Your task to perform on an android device: Turn off the flashlight Image 0: 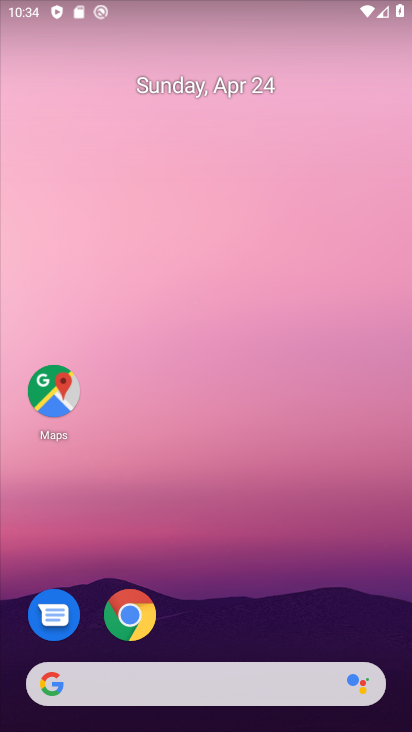
Step 0: drag from (207, 641) to (240, 41)
Your task to perform on an android device: Turn off the flashlight Image 1: 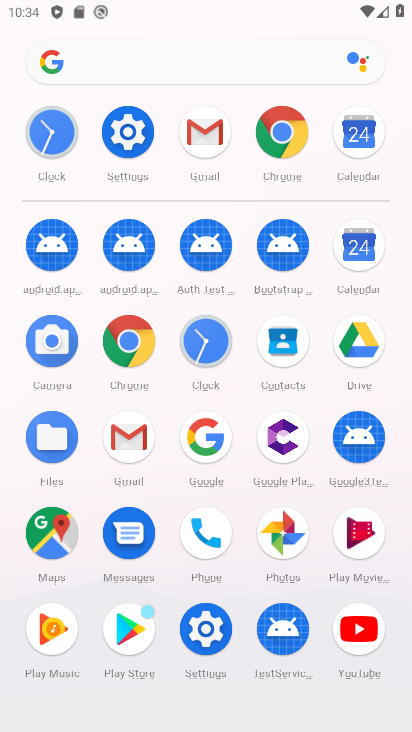
Step 1: click (125, 123)
Your task to perform on an android device: Turn off the flashlight Image 2: 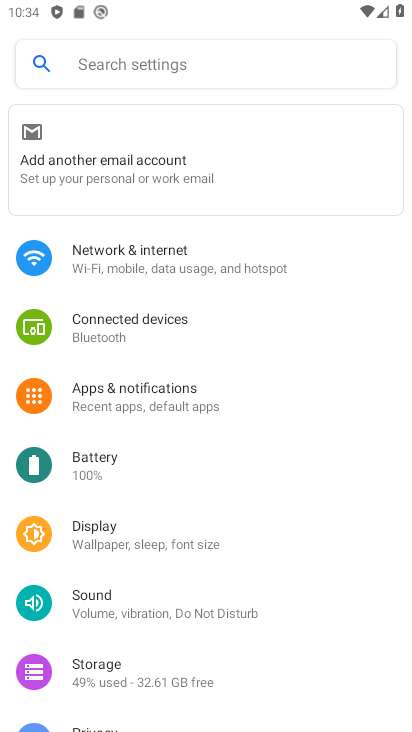
Step 2: click (131, 61)
Your task to perform on an android device: Turn off the flashlight Image 3: 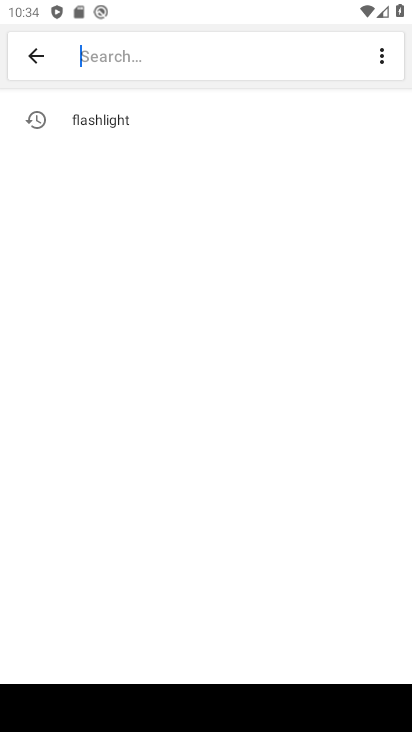
Step 3: click (134, 120)
Your task to perform on an android device: Turn off the flashlight Image 4: 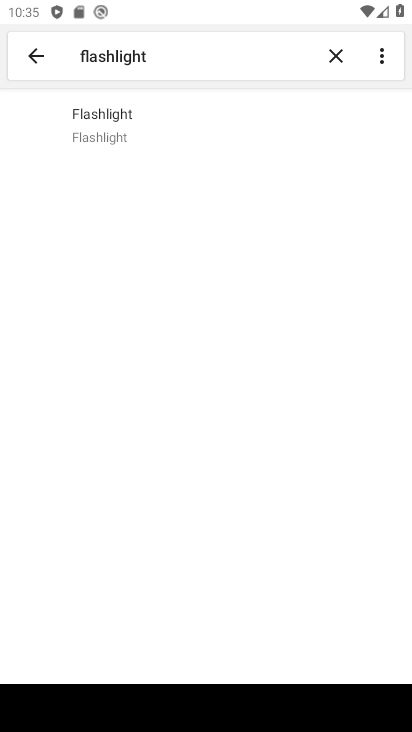
Step 4: click (158, 123)
Your task to perform on an android device: Turn off the flashlight Image 5: 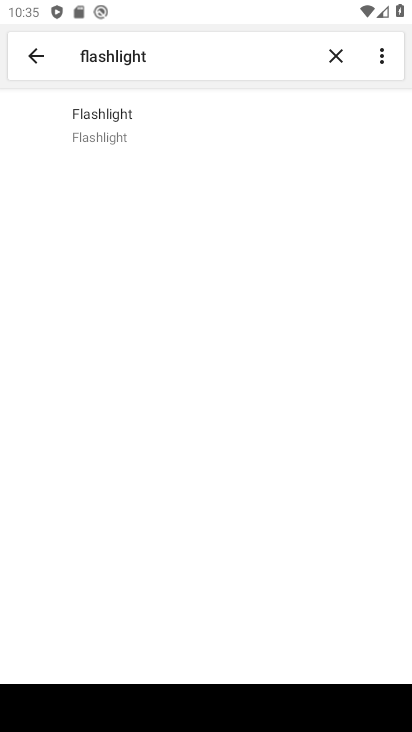
Step 5: task complete